Your task to perform on an android device: check out phone information Image 0: 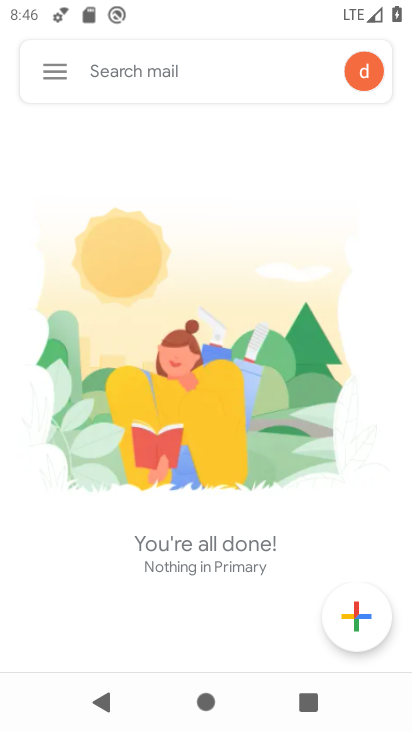
Step 0: press home button
Your task to perform on an android device: check out phone information Image 1: 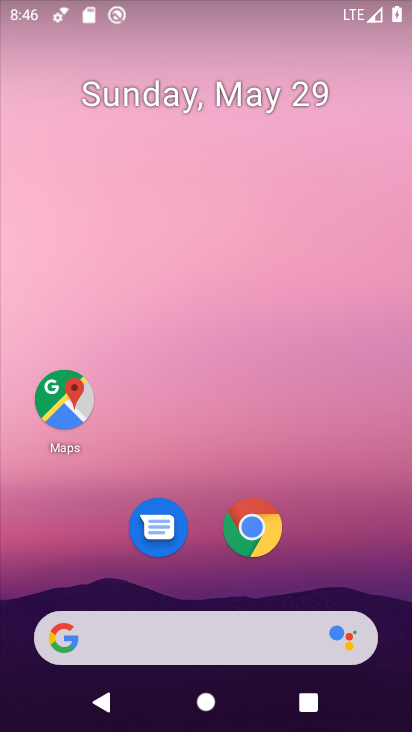
Step 1: click (211, 587)
Your task to perform on an android device: check out phone information Image 2: 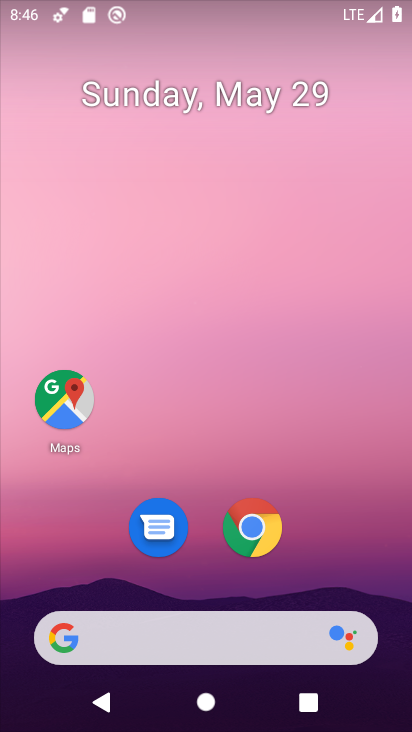
Step 2: drag from (212, 357) to (239, 0)
Your task to perform on an android device: check out phone information Image 3: 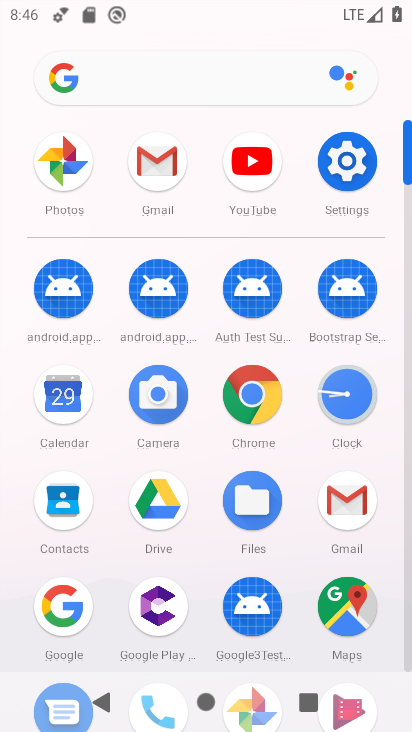
Step 3: click (343, 156)
Your task to perform on an android device: check out phone information Image 4: 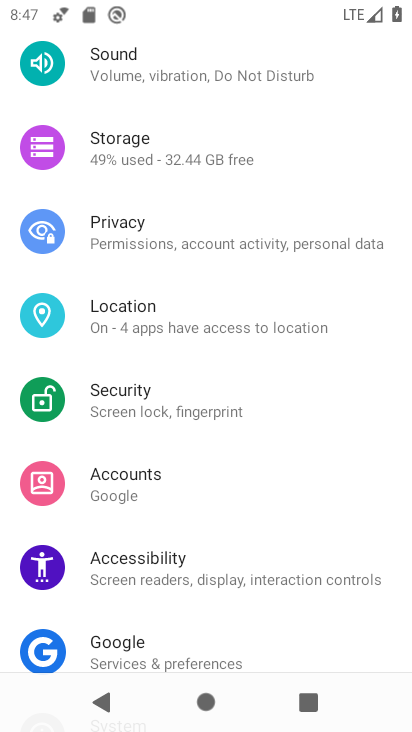
Step 4: drag from (223, 631) to (253, 1)
Your task to perform on an android device: check out phone information Image 5: 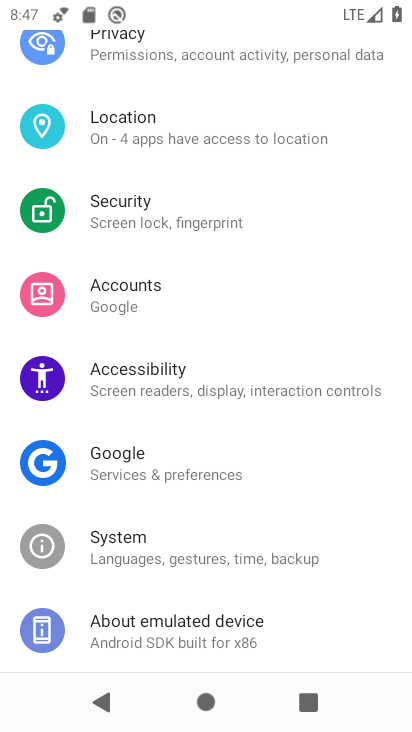
Step 5: click (277, 627)
Your task to perform on an android device: check out phone information Image 6: 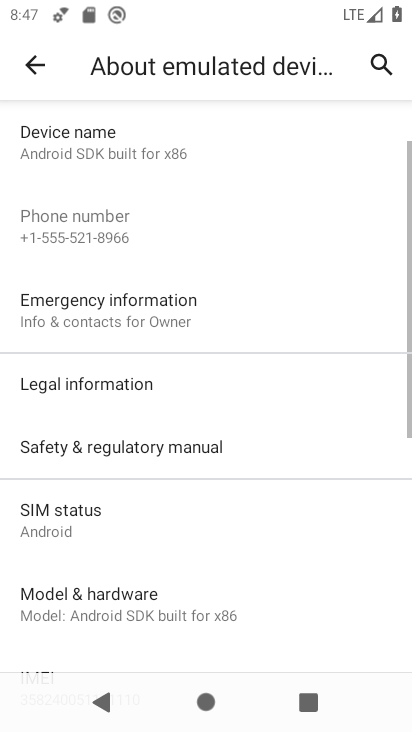
Step 6: task complete